Your task to perform on an android device: install app "Adobe Acrobat Reader" Image 0: 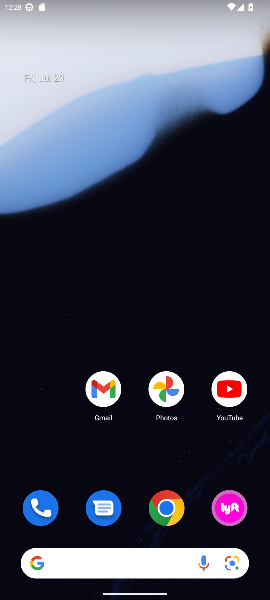
Step 0: drag from (130, 549) to (150, 88)
Your task to perform on an android device: install app "Adobe Acrobat Reader" Image 1: 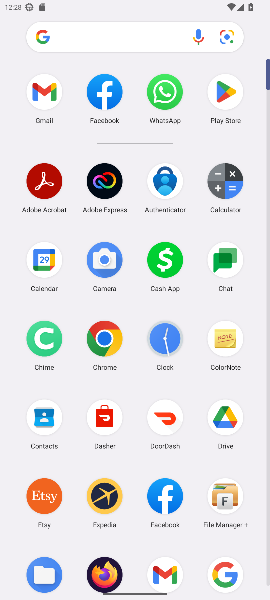
Step 1: click (220, 89)
Your task to perform on an android device: install app "Adobe Acrobat Reader" Image 2: 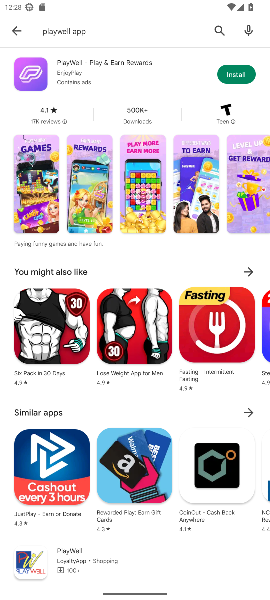
Step 2: click (220, 27)
Your task to perform on an android device: install app "Adobe Acrobat Reader" Image 3: 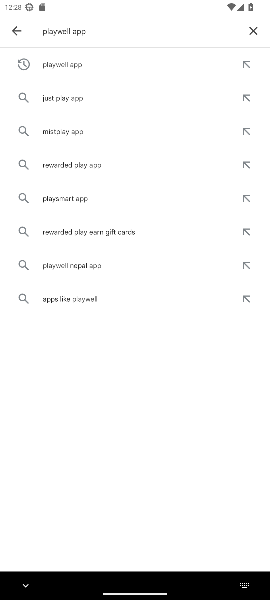
Step 3: click (256, 31)
Your task to perform on an android device: install app "Adobe Acrobat Reader" Image 4: 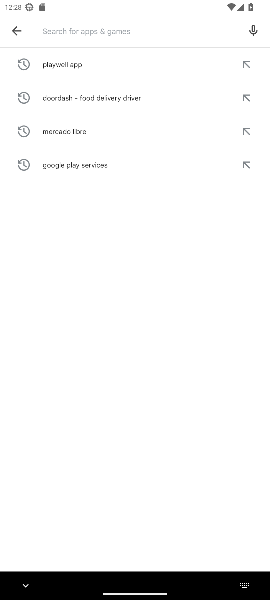
Step 4: type "adobe acrobat reader"
Your task to perform on an android device: install app "Adobe Acrobat Reader" Image 5: 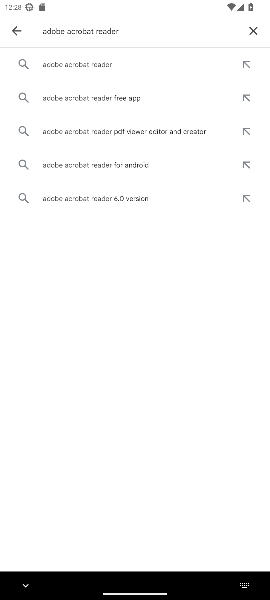
Step 5: click (98, 64)
Your task to perform on an android device: install app "Adobe Acrobat Reader" Image 6: 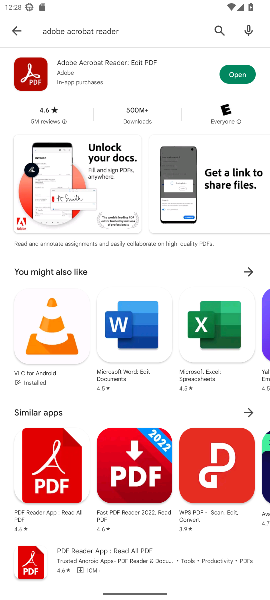
Step 6: task complete